Your task to perform on an android device: Open the map Image 0: 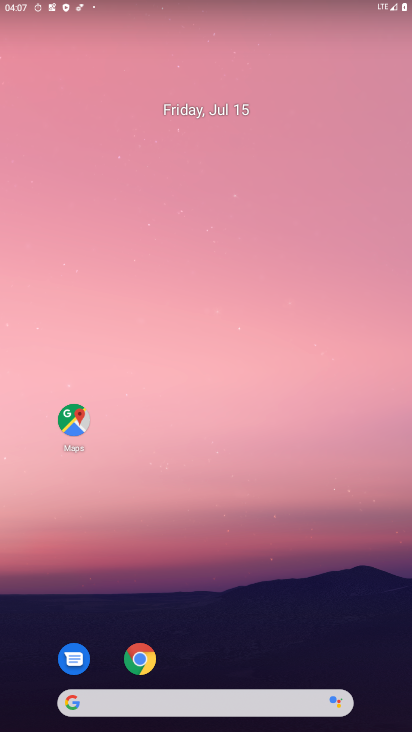
Step 0: click (80, 425)
Your task to perform on an android device: Open the map Image 1: 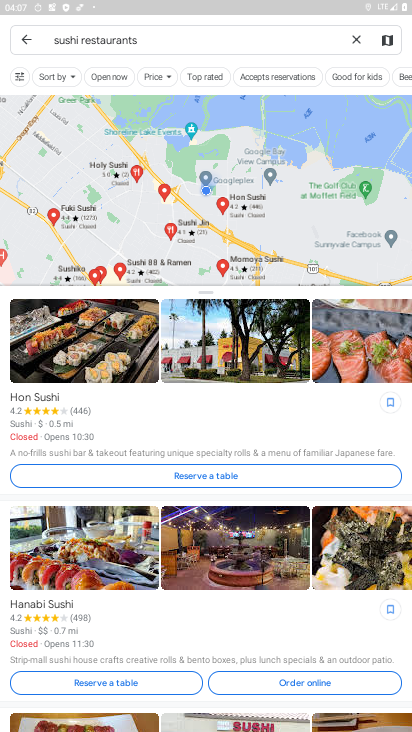
Step 1: task complete